Your task to perform on an android device: Go to Google Image 0: 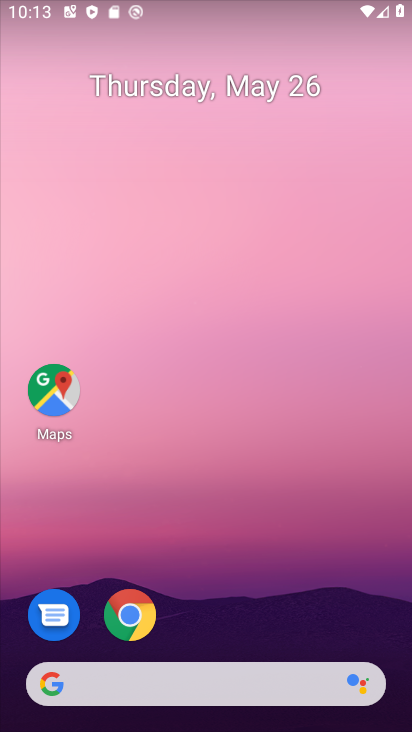
Step 0: drag from (323, 659) to (336, 54)
Your task to perform on an android device: Go to Google Image 1: 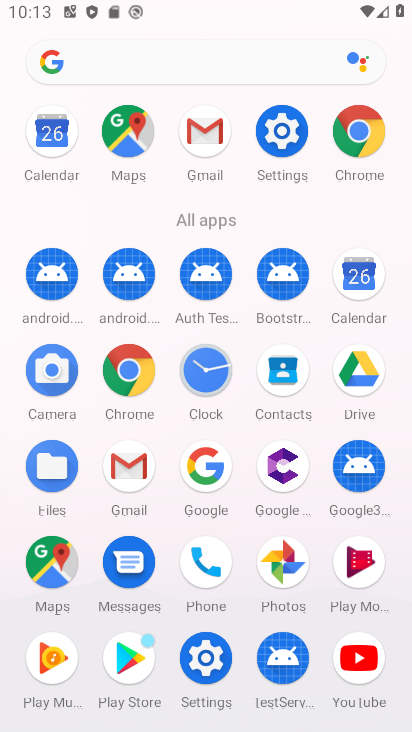
Step 1: click (127, 359)
Your task to perform on an android device: Go to Google Image 2: 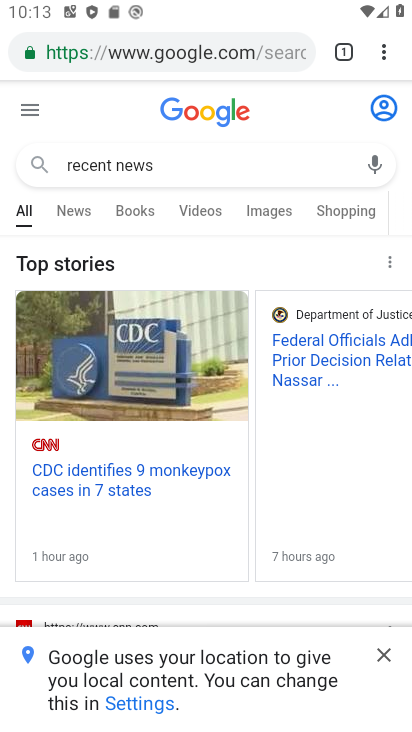
Step 2: task complete